Your task to perform on an android device: turn off wifi Image 0: 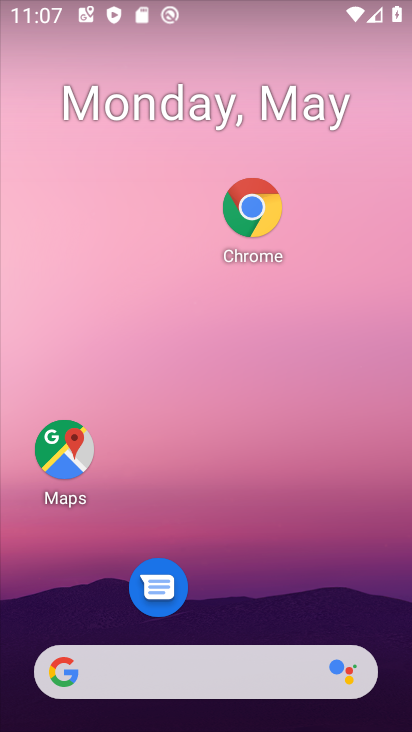
Step 0: drag from (224, 643) to (149, 150)
Your task to perform on an android device: turn off wifi Image 1: 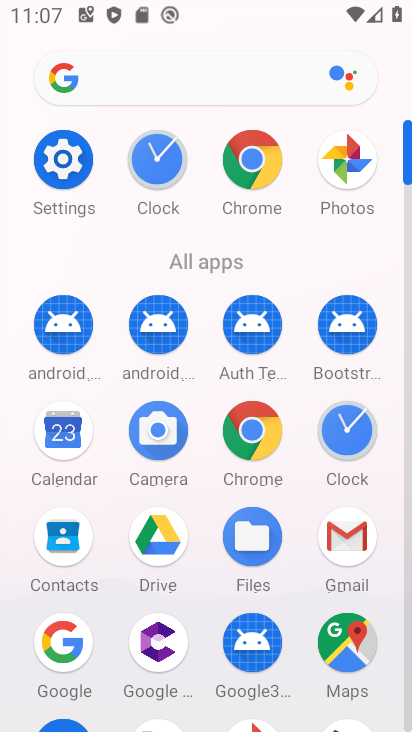
Step 1: click (63, 156)
Your task to perform on an android device: turn off wifi Image 2: 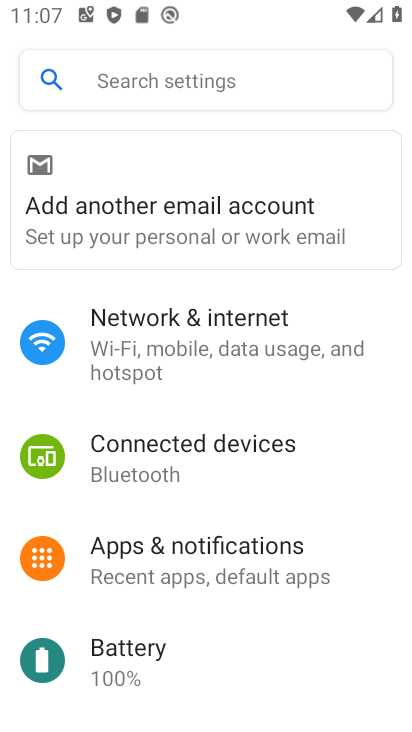
Step 2: click (189, 344)
Your task to perform on an android device: turn off wifi Image 3: 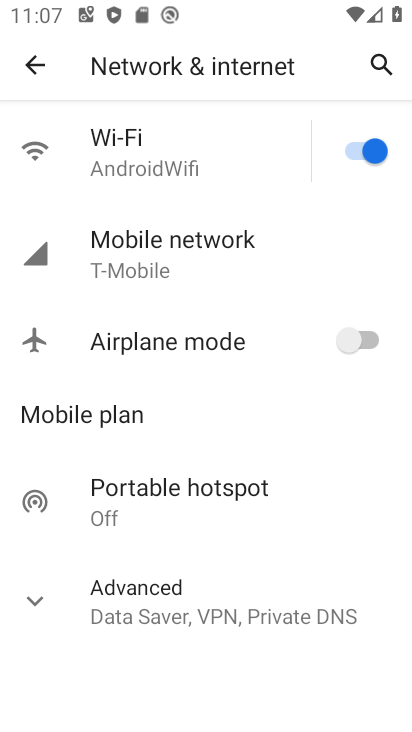
Step 3: click (370, 153)
Your task to perform on an android device: turn off wifi Image 4: 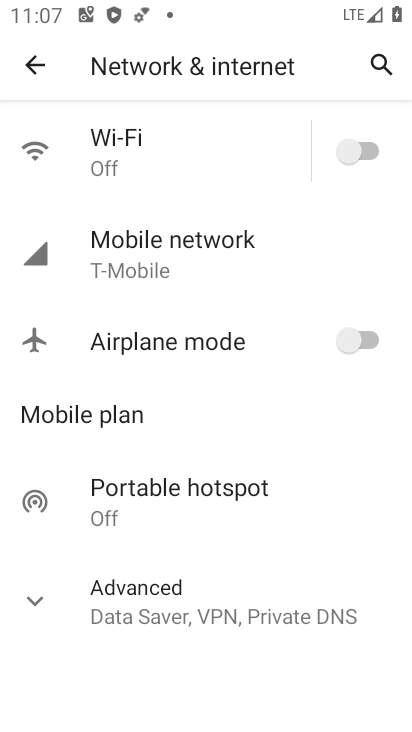
Step 4: task complete